Your task to perform on an android device: change your default location settings in chrome Image 0: 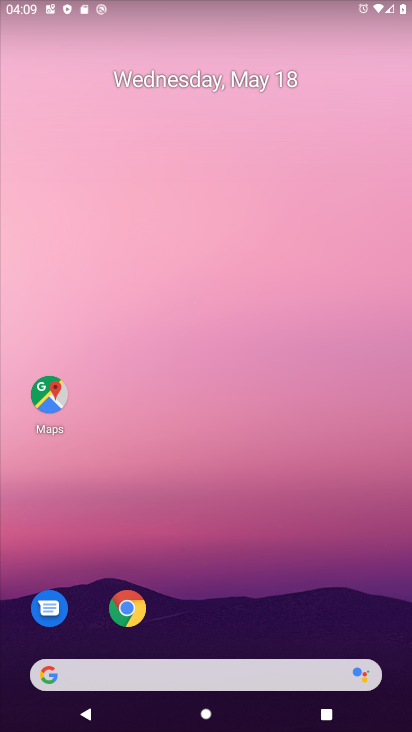
Step 0: click (137, 603)
Your task to perform on an android device: change your default location settings in chrome Image 1: 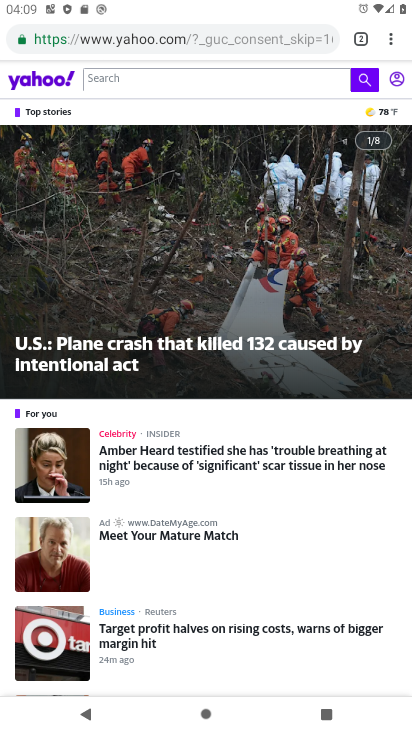
Step 1: click (401, 33)
Your task to perform on an android device: change your default location settings in chrome Image 2: 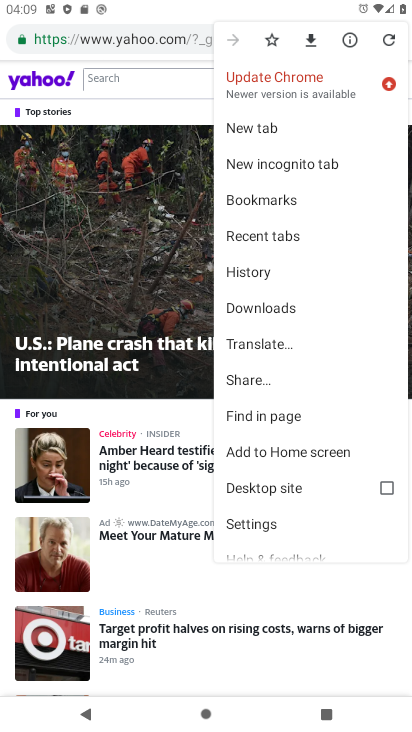
Step 2: click (256, 519)
Your task to perform on an android device: change your default location settings in chrome Image 3: 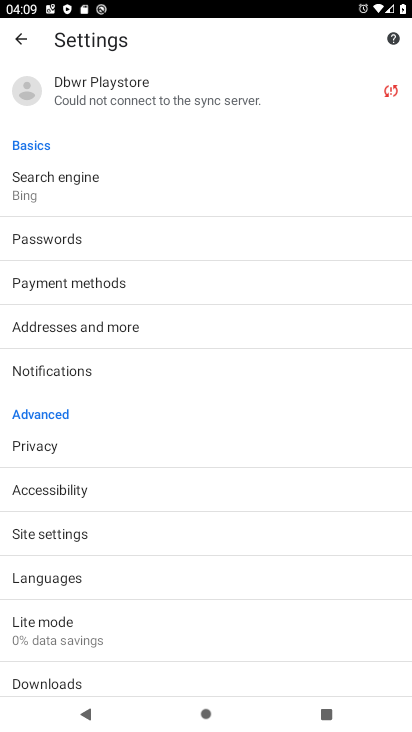
Step 3: drag from (131, 620) to (175, 287)
Your task to perform on an android device: change your default location settings in chrome Image 4: 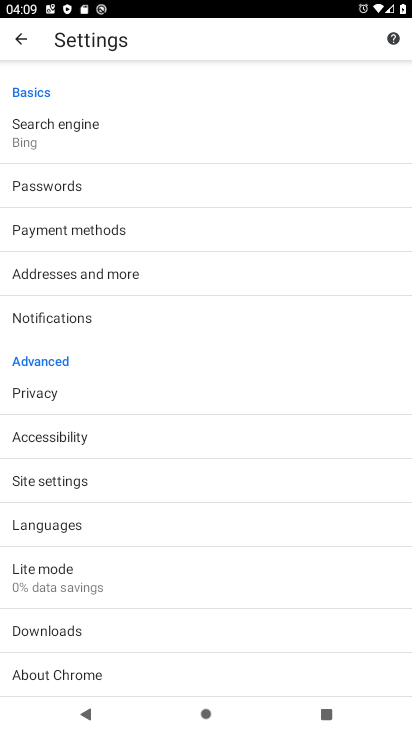
Step 4: click (109, 481)
Your task to perform on an android device: change your default location settings in chrome Image 5: 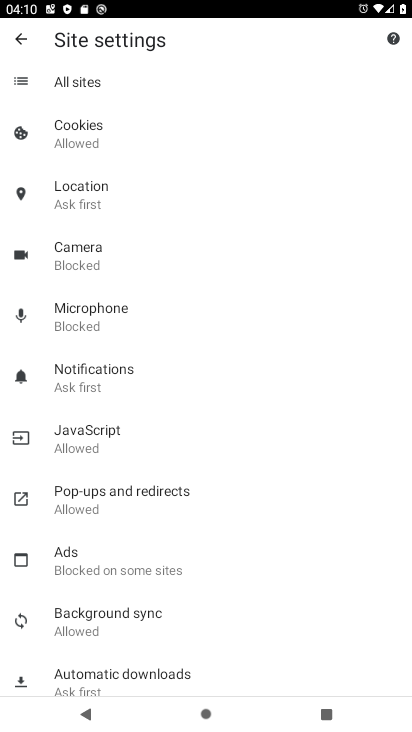
Step 5: click (101, 168)
Your task to perform on an android device: change your default location settings in chrome Image 6: 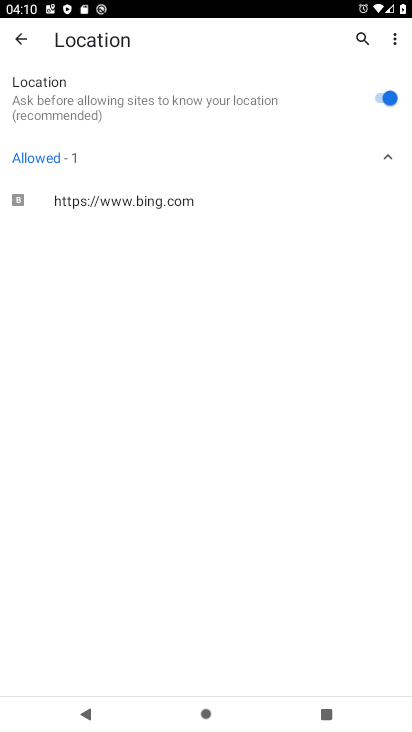
Step 6: click (386, 101)
Your task to perform on an android device: change your default location settings in chrome Image 7: 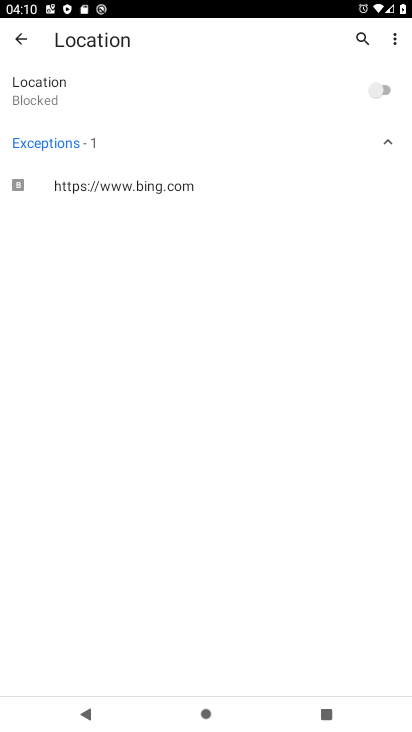
Step 7: task complete